Your task to perform on an android device: change the clock display to show seconds Image 0: 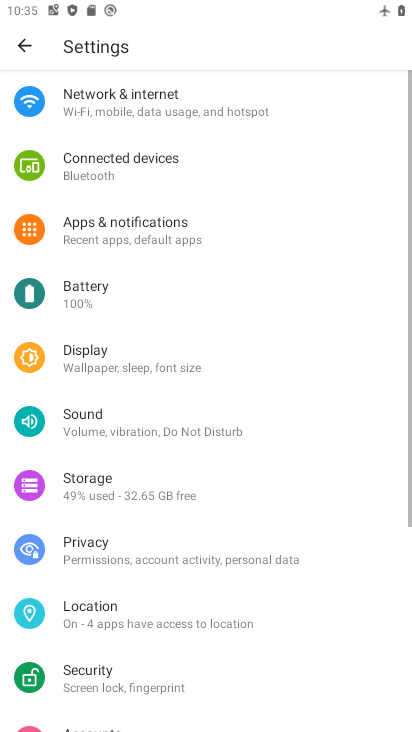
Step 0: press back button
Your task to perform on an android device: change the clock display to show seconds Image 1: 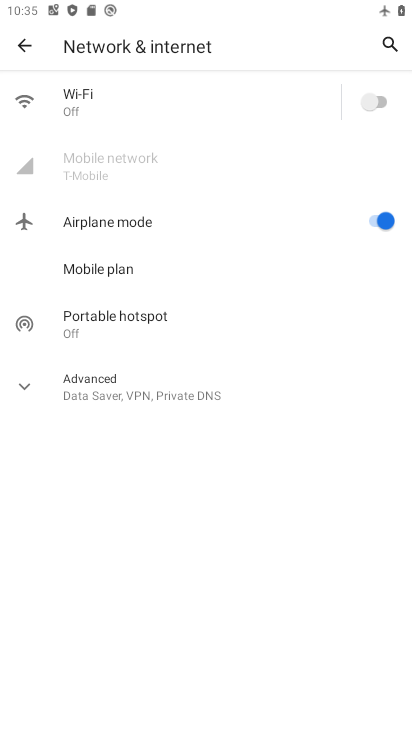
Step 1: press home button
Your task to perform on an android device: change the clock display to show seconds Image 2: 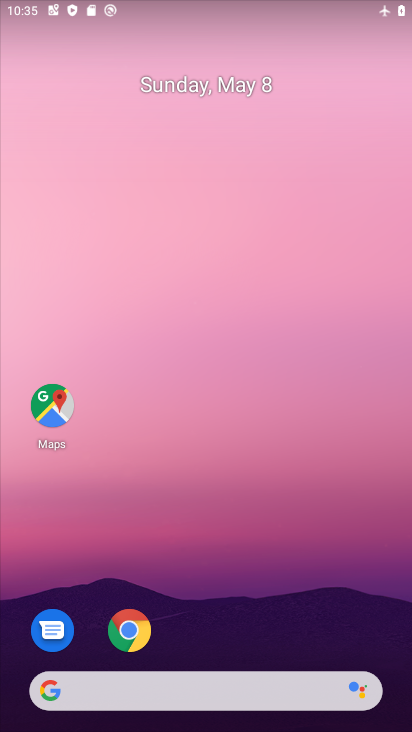
Step 2: drag from (259, 667) to (306, 260)
Your task to perform on an android device: change the clock display to show seconds Image 3: 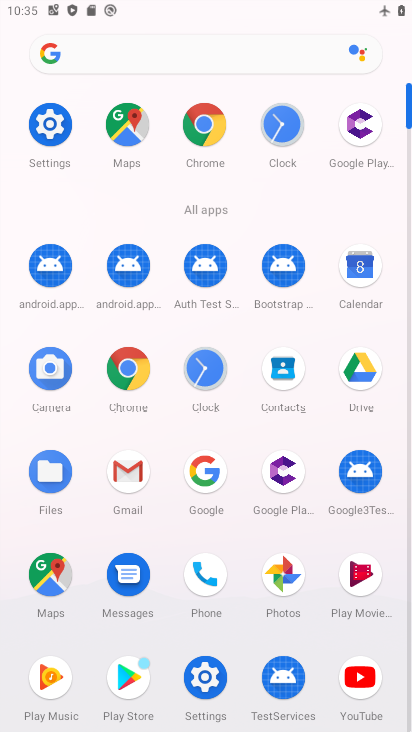
Step 3: click (197, 366)
Your task to perform on an android device: change the clock display to show seconds Image 4: 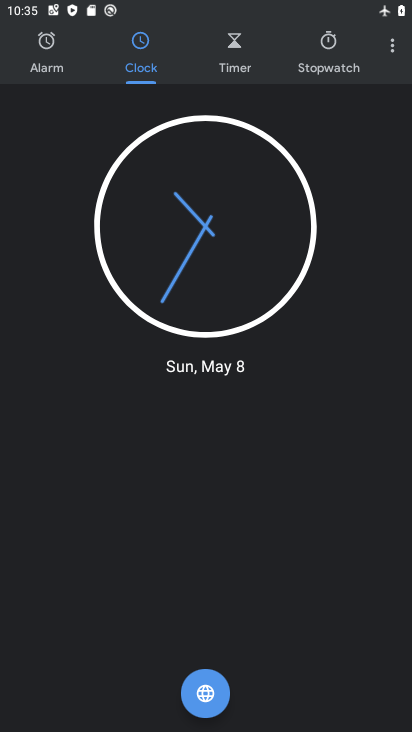
Step 4: click (393, 58)
Your task to perform on an android device: change the clock display to show seconds Image 5: 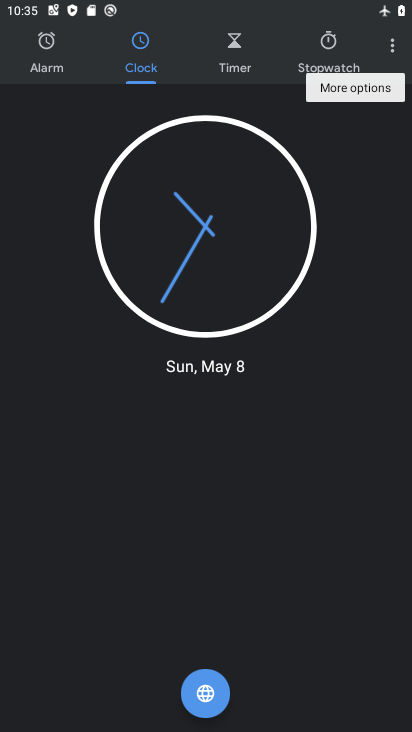
Step 5: click (393, 99)
Your task to perform on an android device: change the clock display to show seconds Image 6: 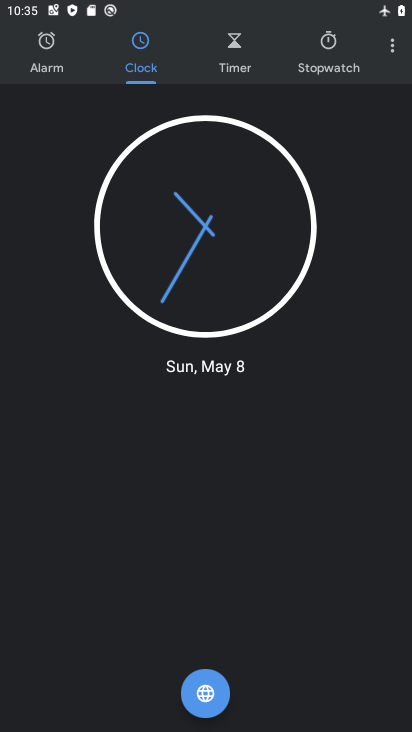
Step 6: click (390, 54)
Your task to perform on an android device: change the clock display to show seconds Image 7: 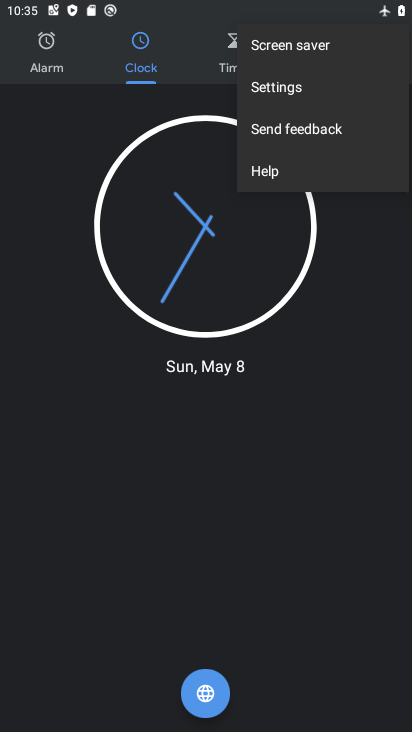
Step 7: click (341, 103)
Your task to perform on an android device: change the clock display to show seconds Image 8: 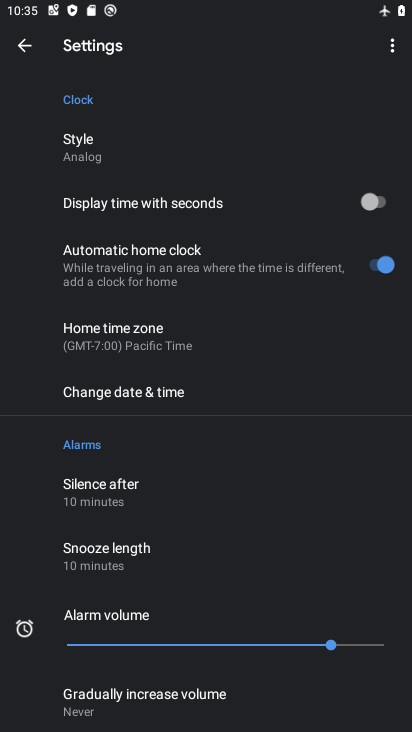
Step 8: click (391, 202)
Your task to perform on an android device: change the clock display to show seconds Image 9: 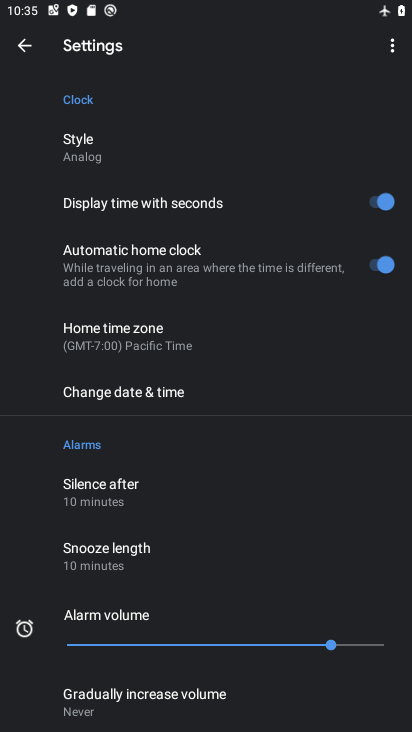
Step 9: task complete